Your task to perform on an android device: Open accessibility settings Image 0: 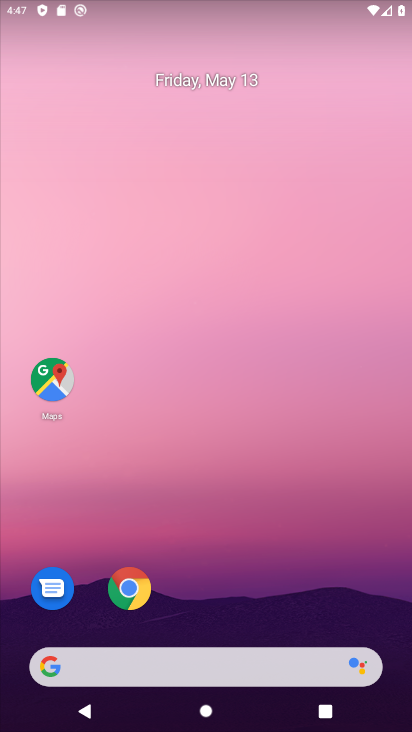
Step 0: drag from (203, 668) to (301, 216)
Your task to perform on an android device: Open accessibility settings Image 1: 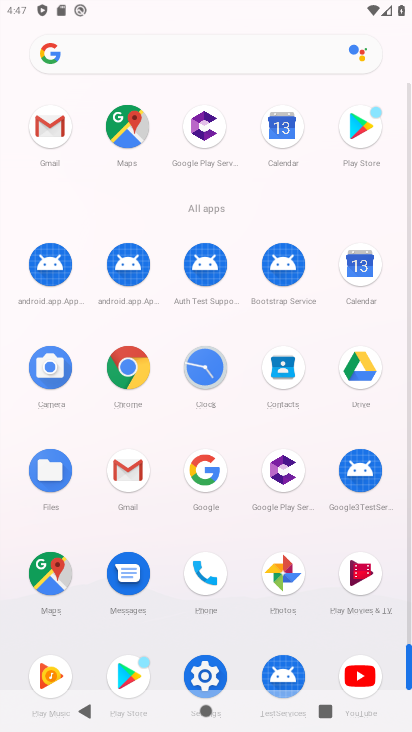
Step 1: drag from (182, 601) to (231, 430)
Your task to perform on an android device: Open accessibility settings Image 2: 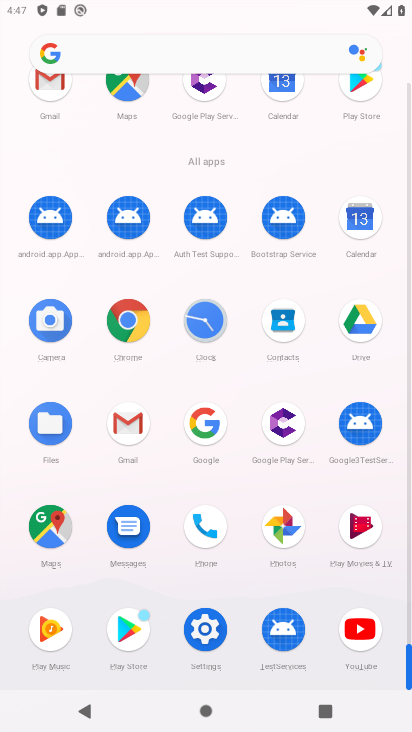
Step 2: click (205, 635)
Your task to perform on an android device: Open accessibility settings Image 3: 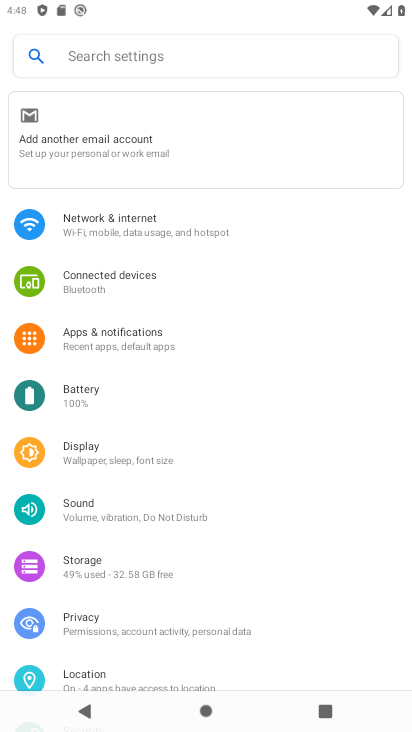
Step 3: drag from (202, 641) to (304, 279)
Your task to perform on an android device: Open accessibility settings Image 4: 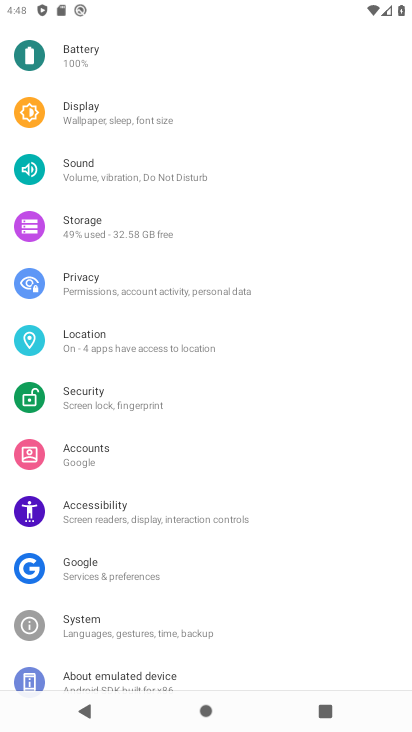
Step 4: click (147, 524)
Your task to perform on an android device: Open accessibility settings Image 5: 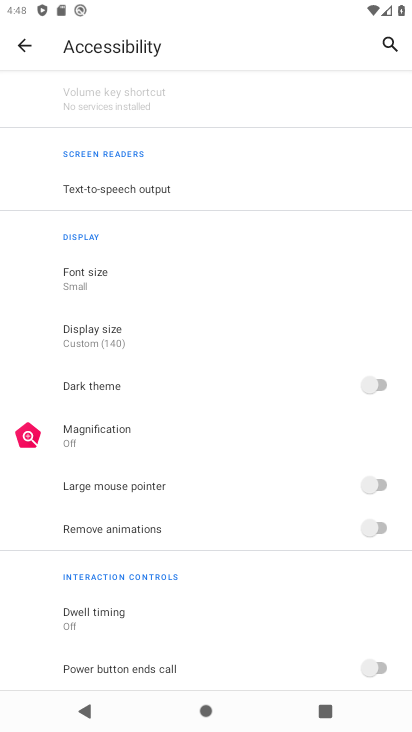
Step 5: task complete